Your task to perform on an android device: Show me productivity apps on the Play Store Image 0: 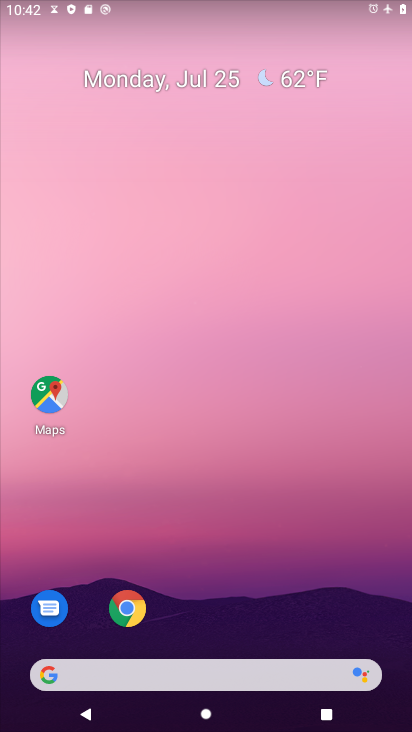
Step 0: drag from (221, 670) to (361, 136)
Your task to perform on an android device: Show me productivity apps on the Play Store Image 1: 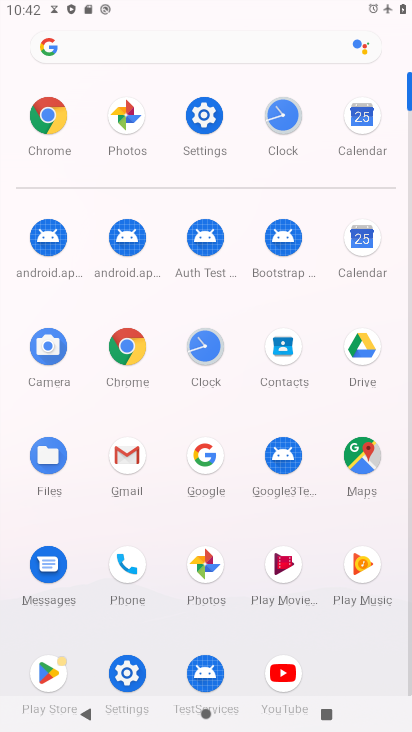
Step 1: click (49, 670)
Your task to perform on an android device: Show me productivity apps on the Play Store Image 2: 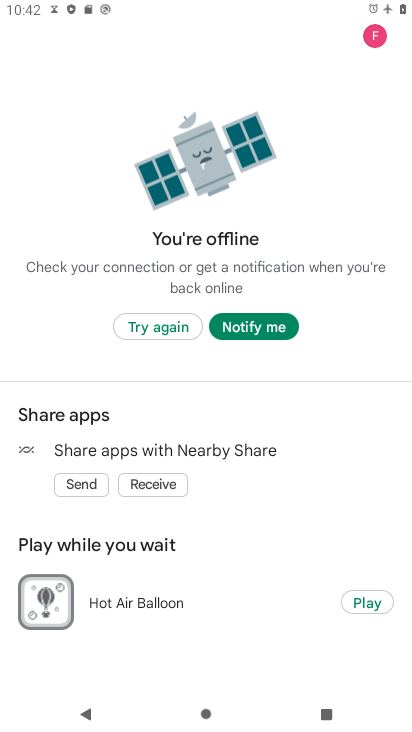
Step 2: click (159, 329)
Your task to perform on an android device: Show me productivity apps on the Play Store Image 3: 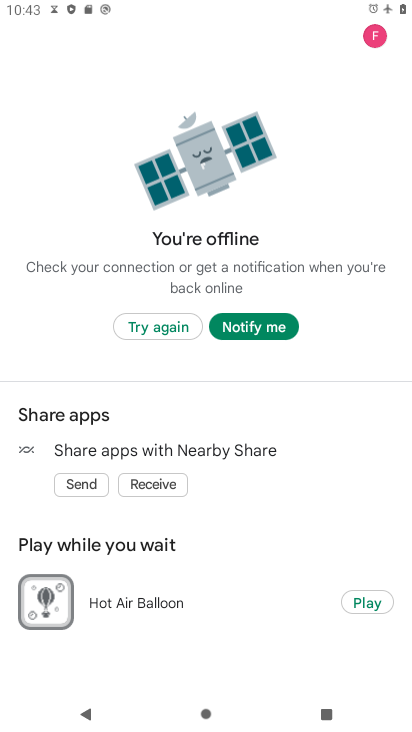
Step 3: press home button
Your task to perform on an android device: Show me productivity apps on the Play Store Image 4: 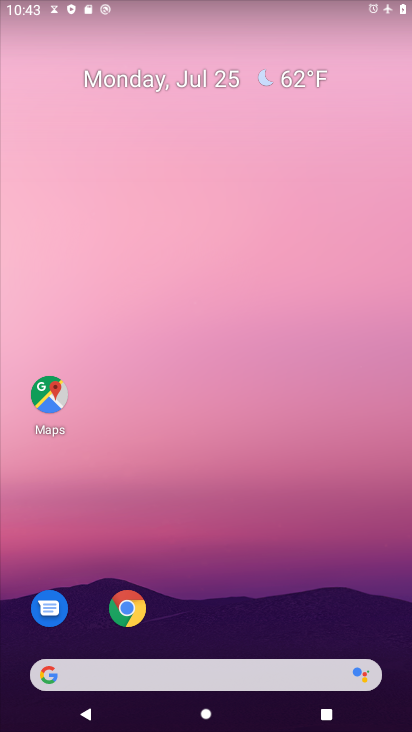
Step 4: drag from (177, 665) to (219, 78)
Your task to perform on an android device: Show me productivity apps on the Play Store Image 5: 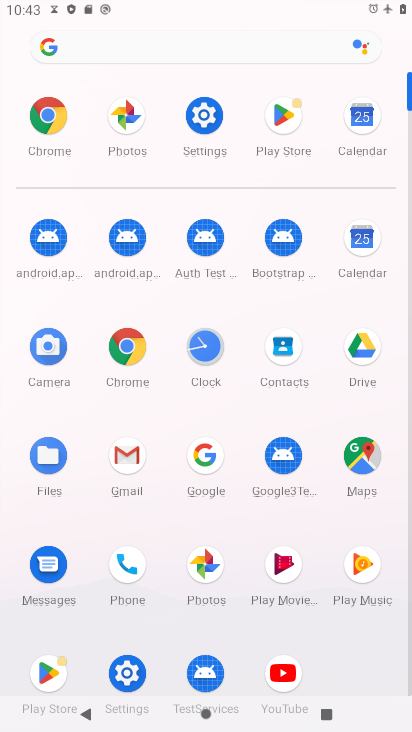
Step 5: click (205, 114)
Your task to perform on an android device: Show me productivity apps on the Play Store Image 6: 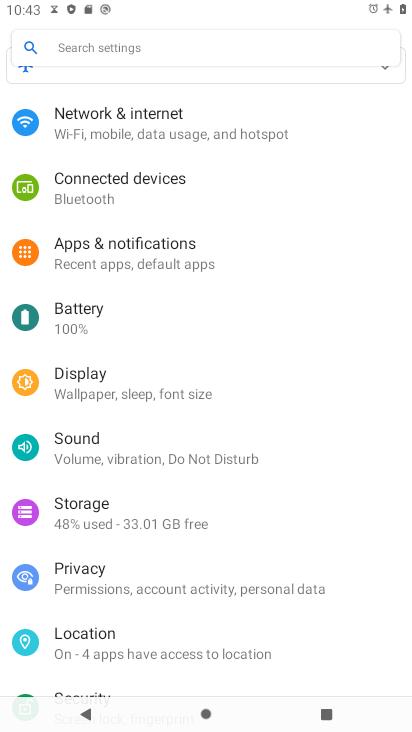
Step 6: click (178, 126)
Your task to perform on an android device: Show me productivity apps on the Play Store Image 7: 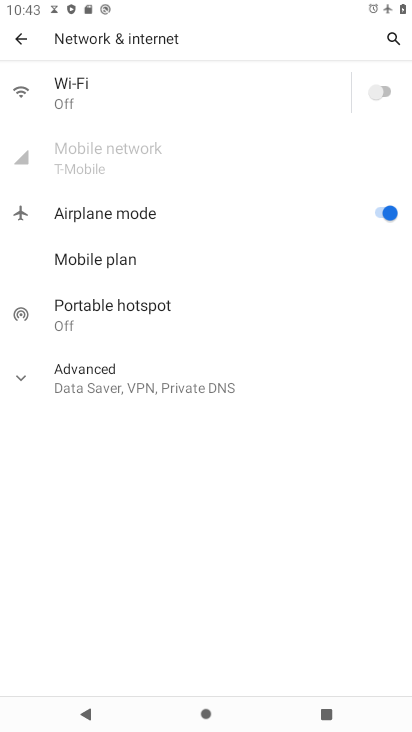
Step 7: click (376, 210)
Your task to perform on an android device: Show me productivity apps on the Play Store Image 8: 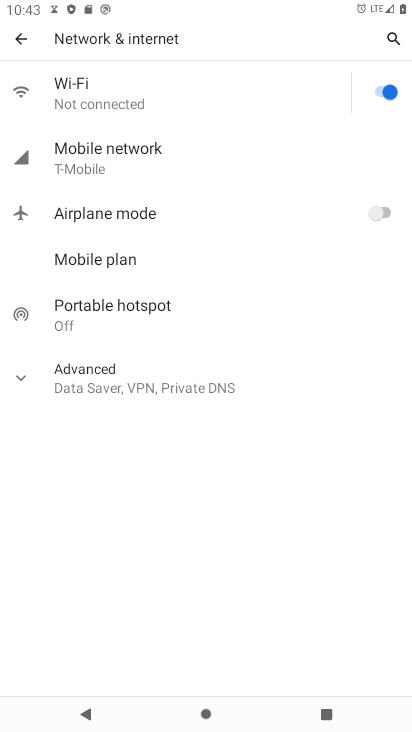
Step 8: press back button
Your task to perform on an android device: Show me productivity apps on the Play Store Image 9: 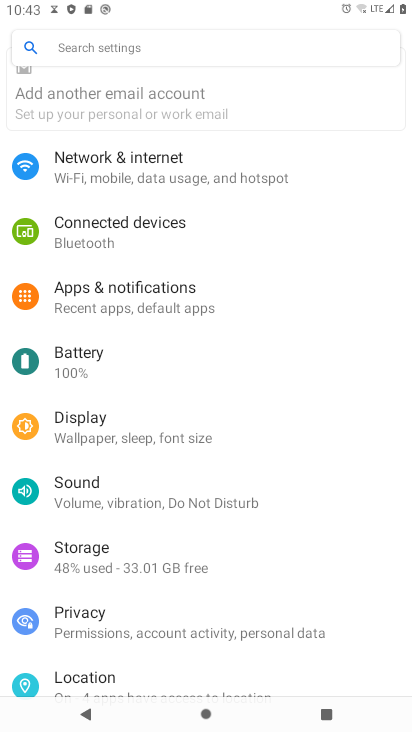
Step 9: press back button
Your task to perform on an android device: Show me productivity apps on the Play Store Image 10: 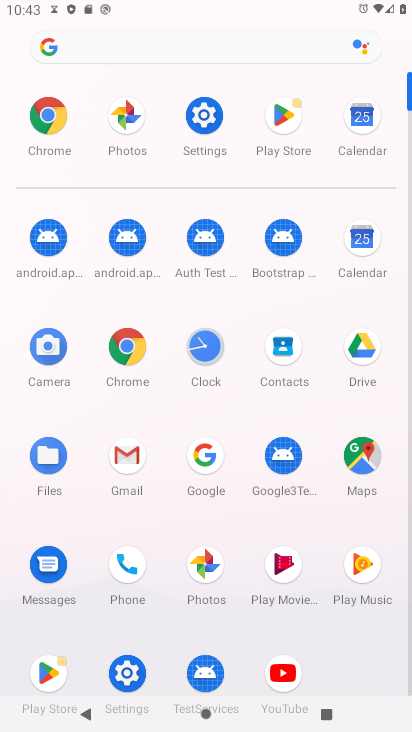
Step 10: click (284, 114)
Your task to perform on an android device: Show me productivity apps on the Play Store Image 11: 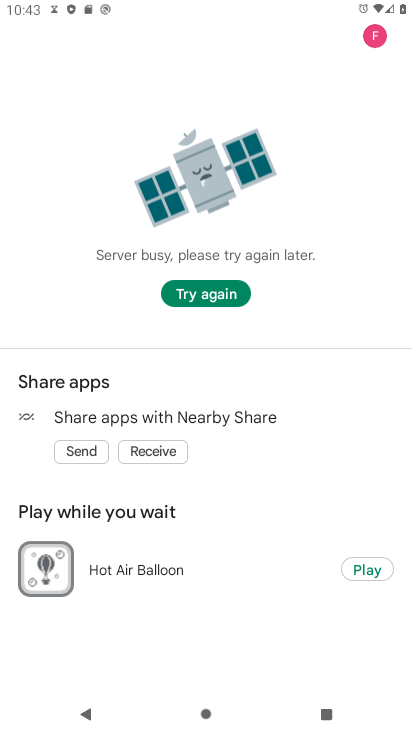
Step 11: click (195, 288)
Your task to perform on an android device: Show me productivity apps on the Play Store Image 12: 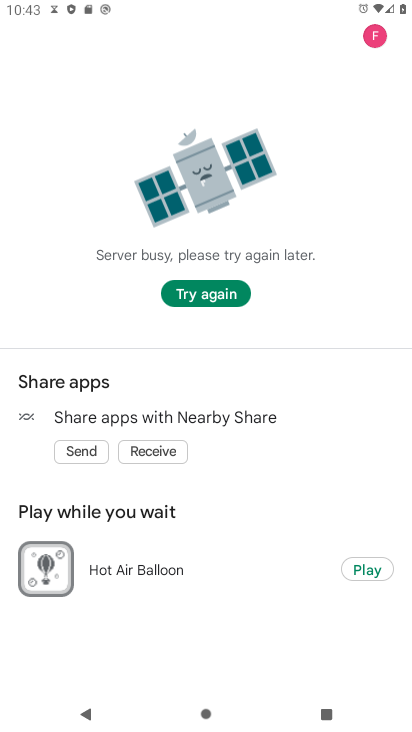
Step 12: click (198, 305)
Your task to perform on an android device: Show me productivity apps on the Play Store Image 13: 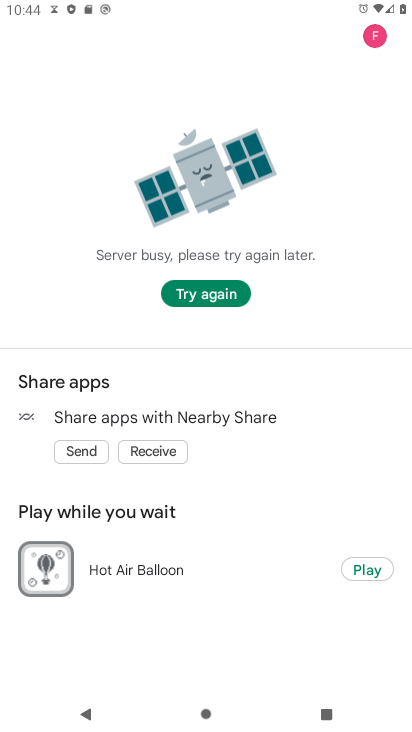
Step 13: click (243, 302)
Your task to perform on an android device: Show me productivity apps on the Play Store Image 14: 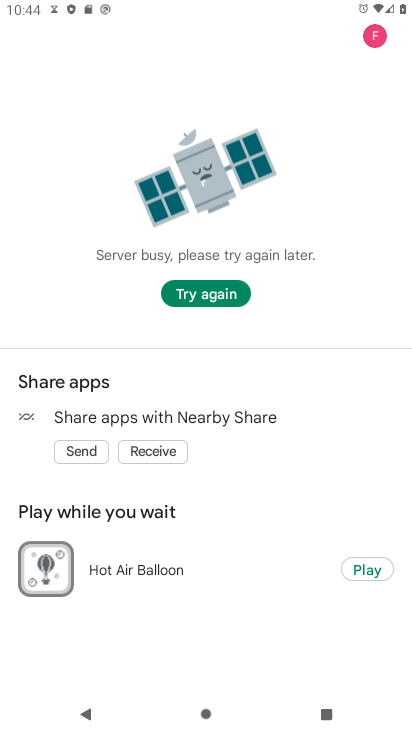
Step 14: task complete